Your task to perform on an android device: snooze an email in the gmail app Image 0: 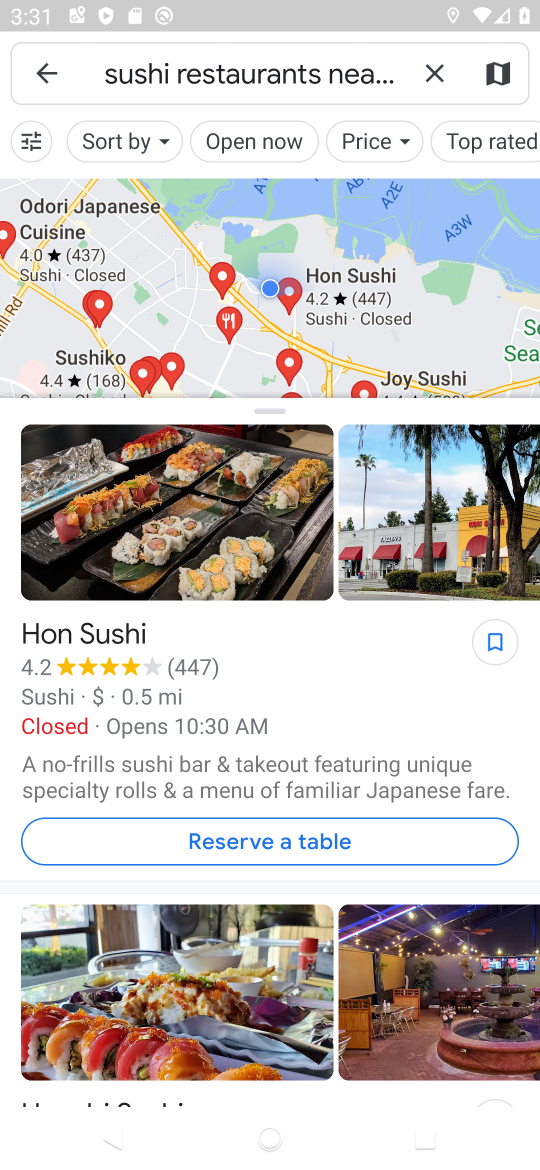
Step 0: press home button
Your task to perform on an android device: snooze an email in the gmail app Image 1: 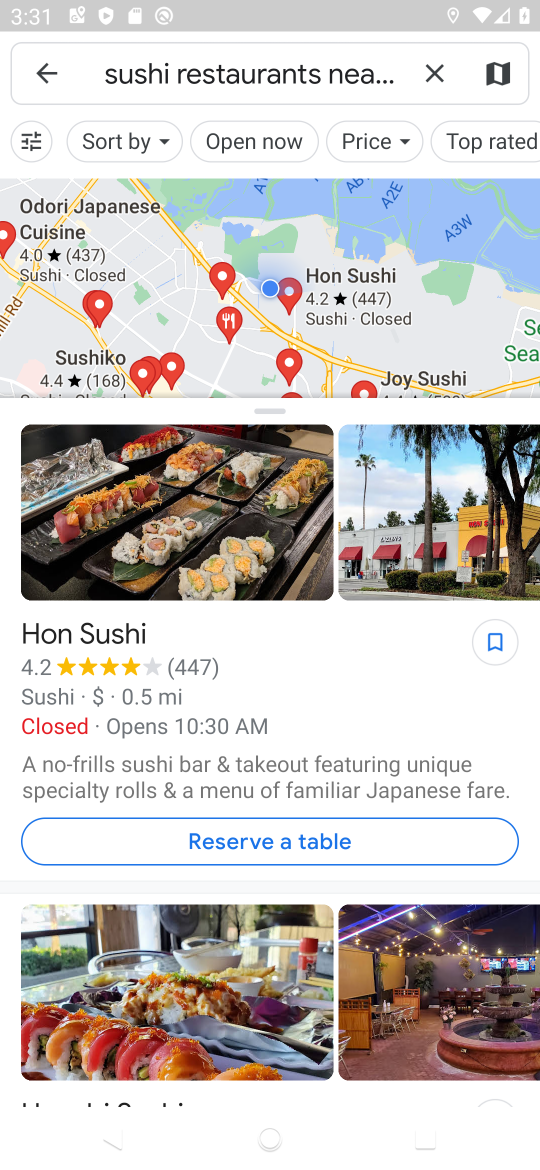
Step 1: press home button
Your task to perform on an android device: snooze an email in the gmail app Image 2: 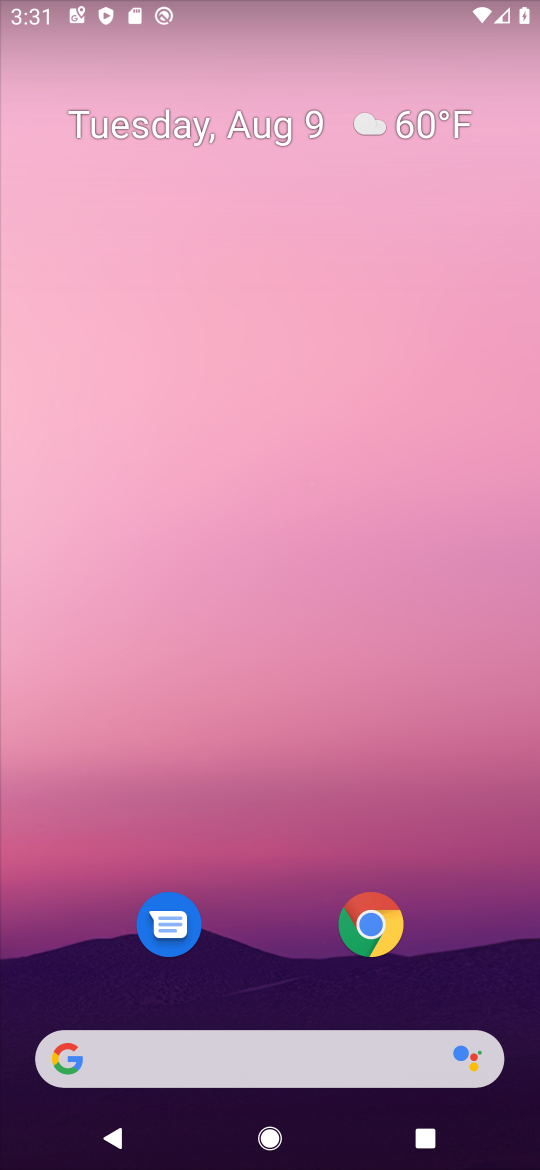
Step 2: drag from (255, 989) to (275, 0)
Your task to perform on an android device: snooze an email in the gmail app Image 3: 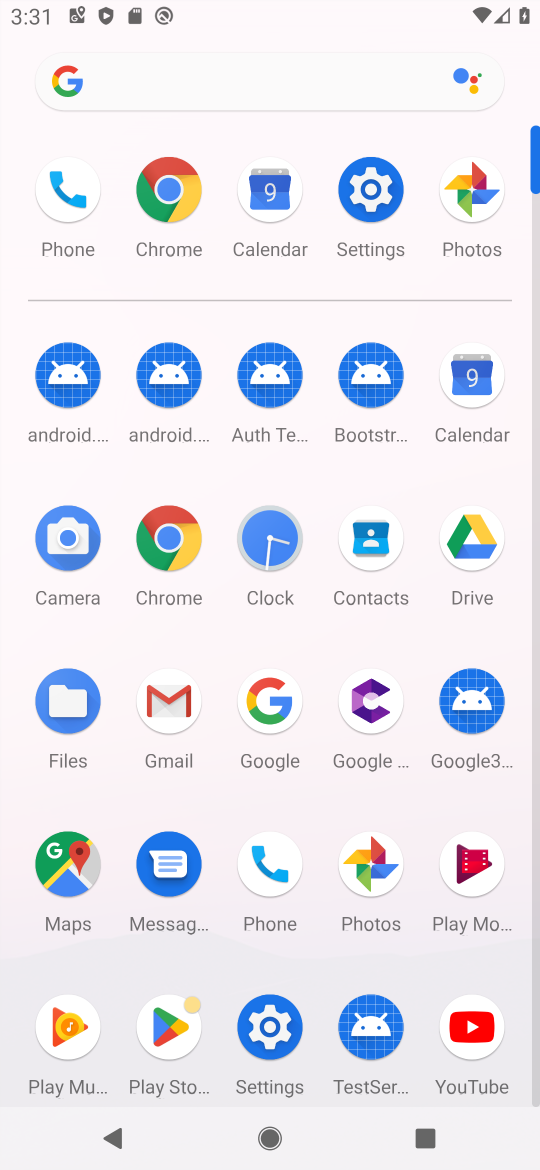
Step 3: click (181, 715)
Your task to perform on an android device: snooze an email in the gmail app Image 4: 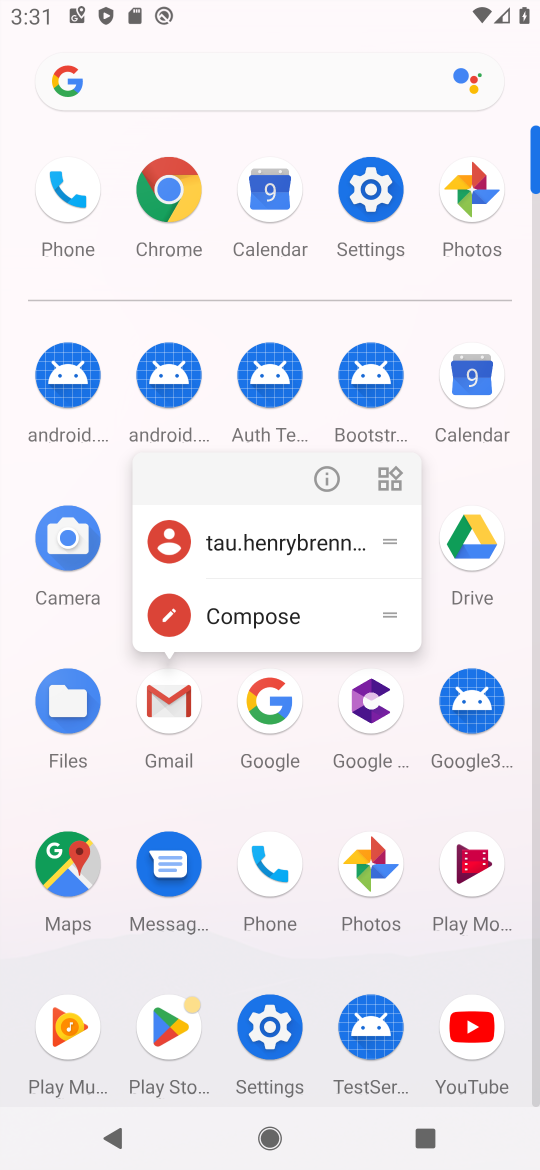
Step 4: click (169, 695)
Your task to perform on an android device: snooze an email in the gmail app Image 5: 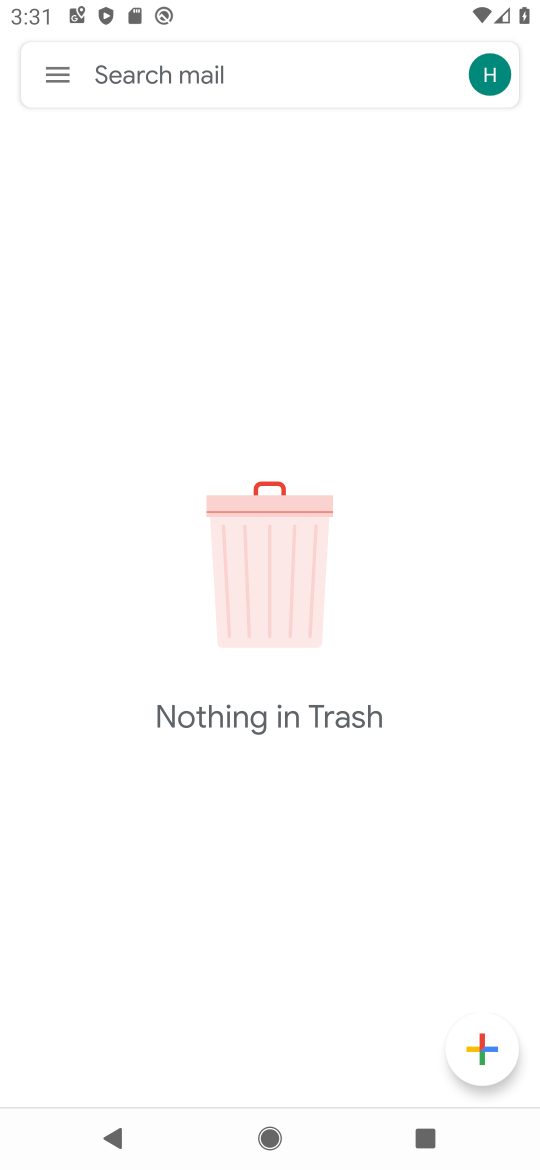
Step 5: click (56, 69)
Your task to perform on an android device: snooze an email in the gmail app Image 6: 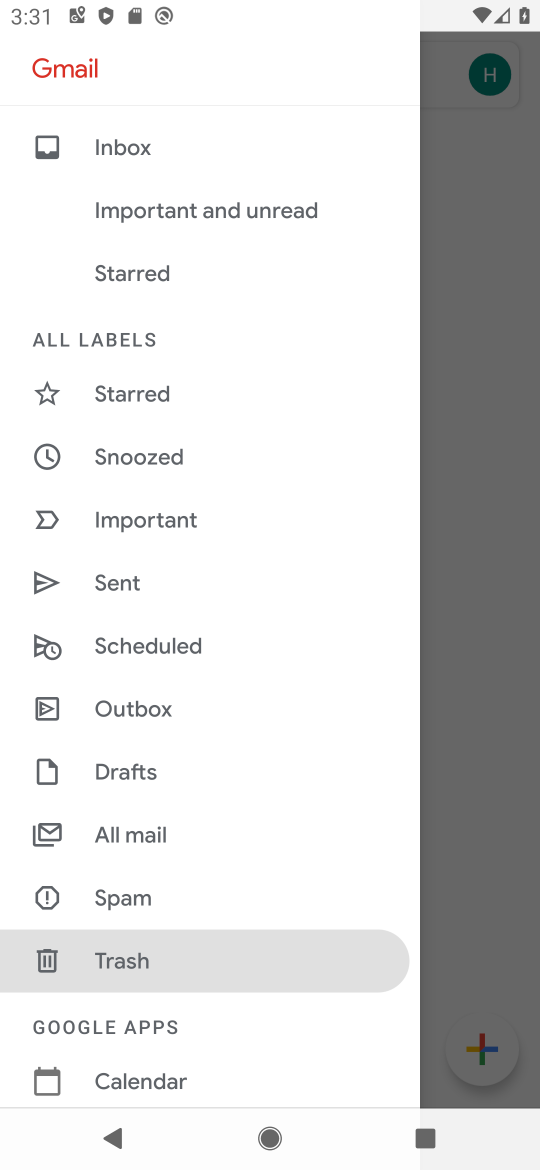
Step 6: click (136, 827)
Your task to perform on an android device: snooze an email in the gmail app Image 7: 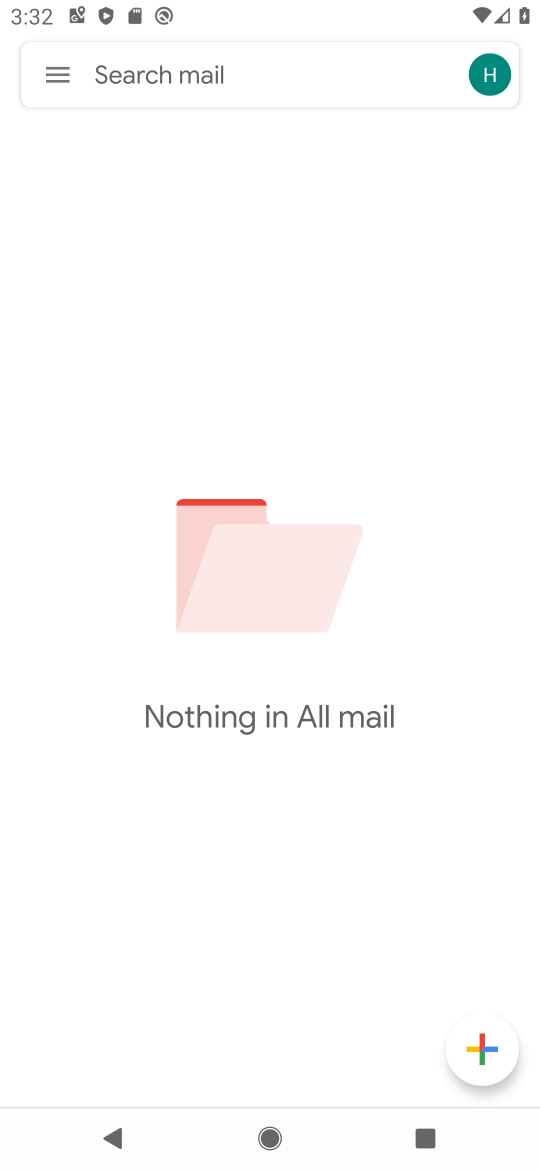
Step 7: task complete